Your task to perform on an android device: turn notification dots off Image 0: 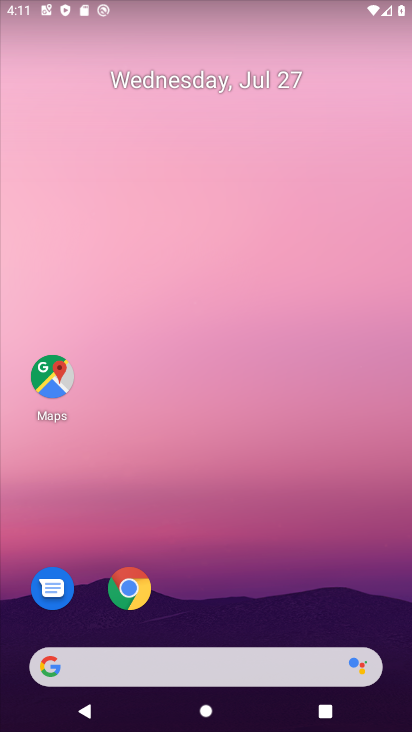
Step 0: drag from (241, 727) to (235, 138)
Your task to perform on an android device: turn notification dots off Image 1: 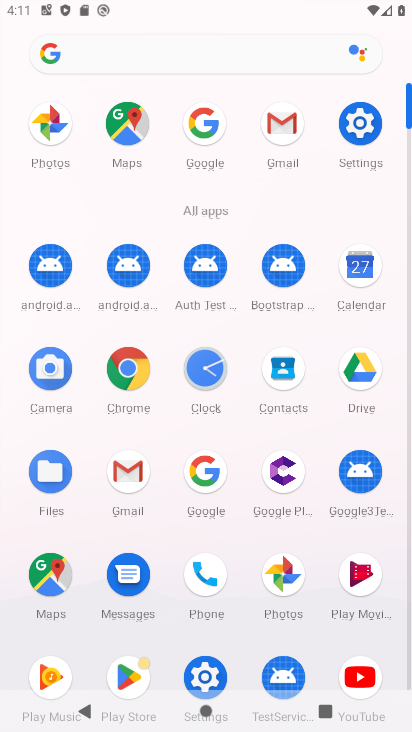
Step 1: click (350, 134)
Your task to perform on an android device: turn notification dots off Image 2: 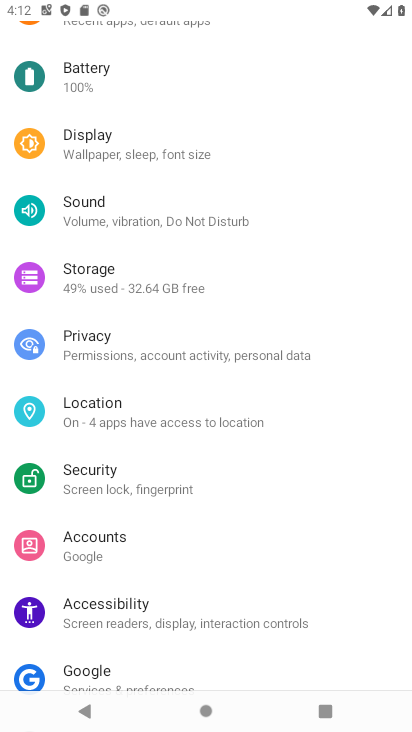
Step 2: drag from (168, 134) to (167, 491)
Your task to perform on an android device: turn notification dots off Image 3: 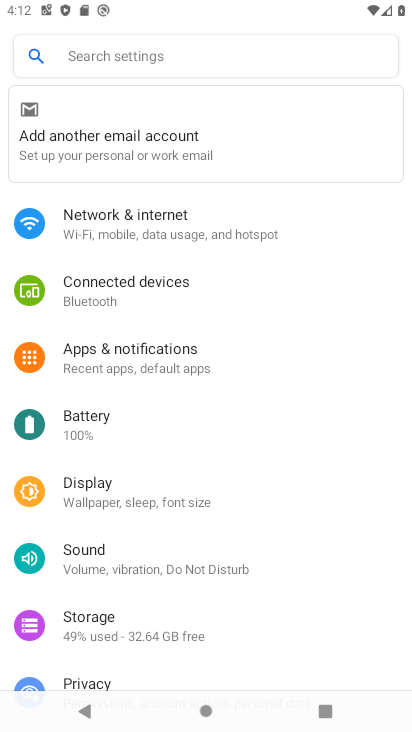
Step 3: click (145, 349)
Your task to perform on an android device: turn notification dots off Image 4: 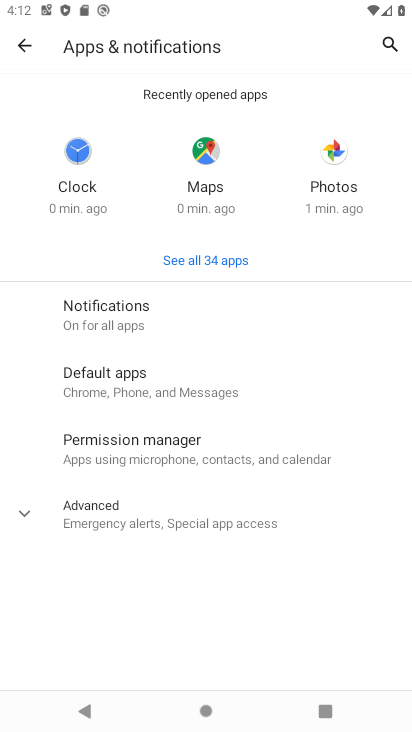
Step 4: click (118, 315)
Your task to perform on an android device: turn notification dots off Image 5: 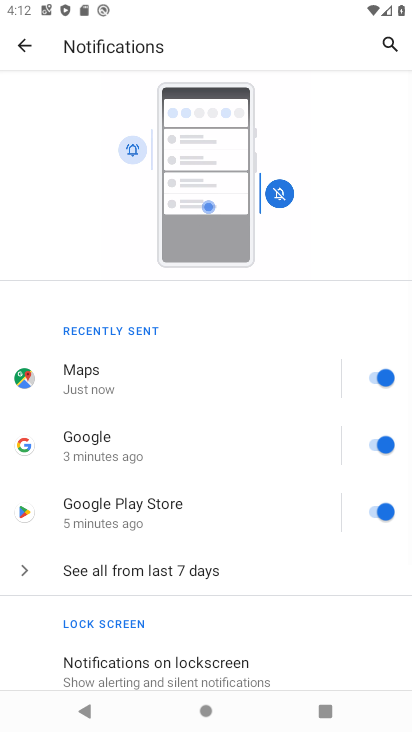
Step 5: drag from (219, 662) to (225, 339)
Your task to perform on an android device: turn notification dots off Image 6: 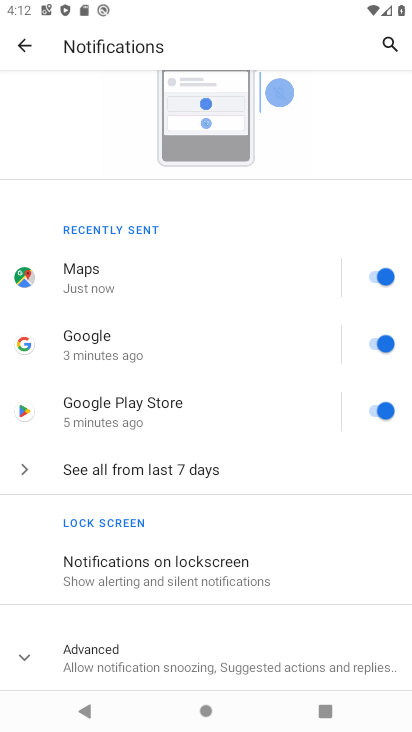
Step 6: click (176, 655)
Your task to perform on an android device: turn notification dots off Image 7: 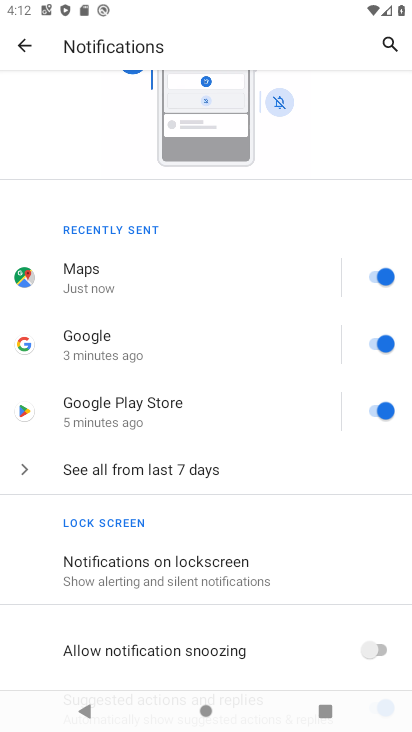
Step 7: drag from (324, 651) to (327, 394)
Your task to perform on an android device: turn notification dots off Image 8: 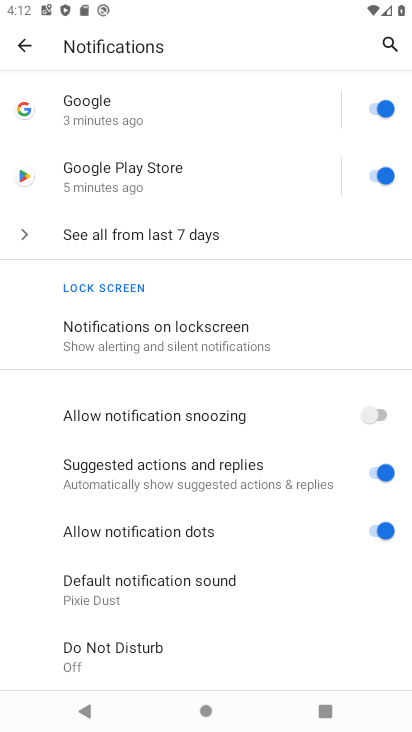
Step 8: click (379, 527)
Your task to perform on an android device: turn notification dots off Image 9: 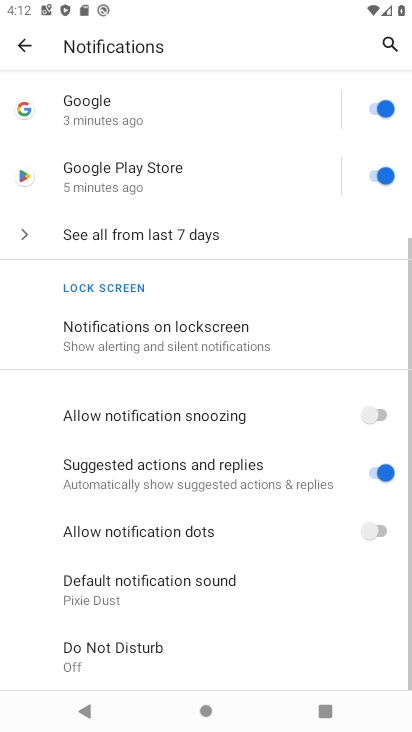
Step 9: task complete